Your task to perform on an android device: clear history in the chrome app Image 0: 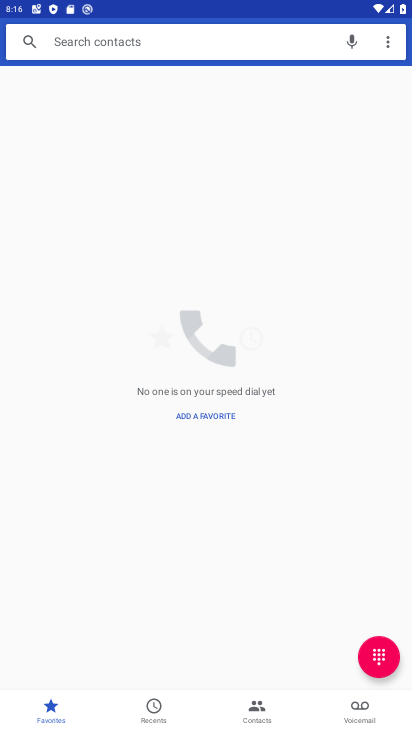
Step 0: drag from (175, 509) to (199, 290)
Your task to perform on an android device: clear history in the chrome app Image 1: 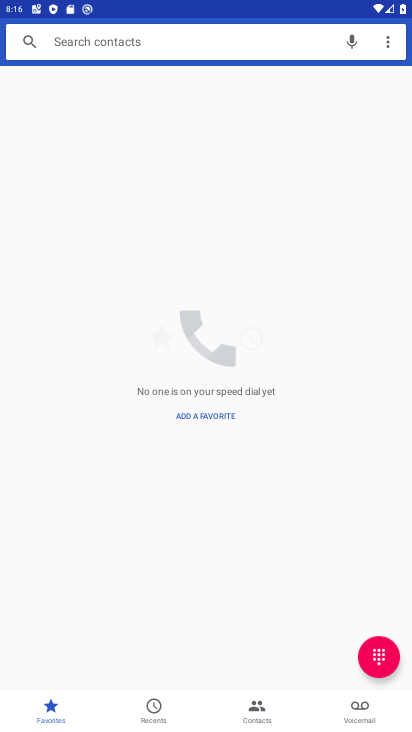
Step 1: press home button
Your task to perform on an android device: clear history in the chrome app Image 2: 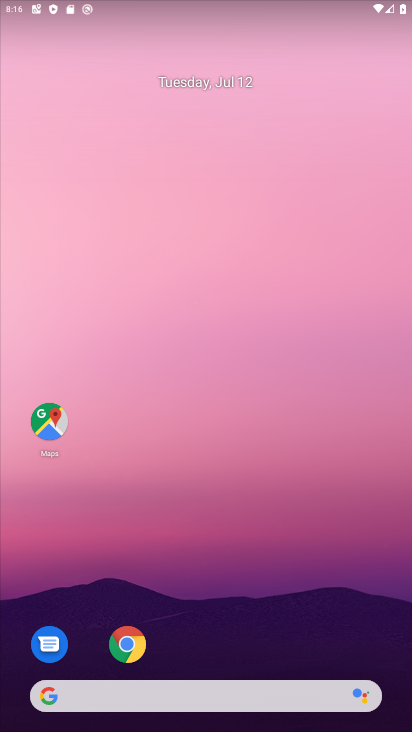
Step 2: drag from (188, 663) to (229, 130)
Your task to perform on an android device: clear history in the chrome app Image 3: 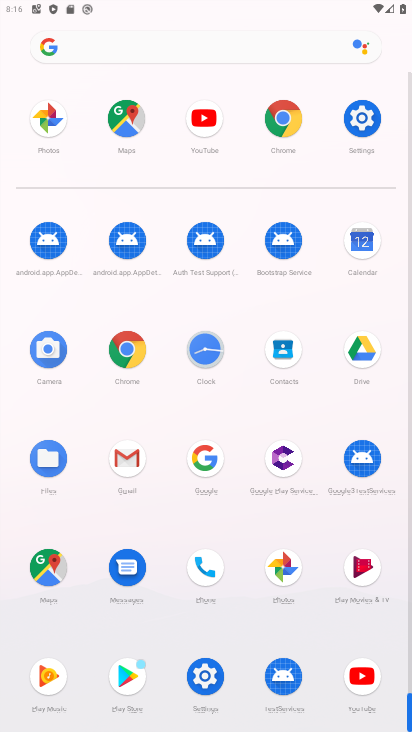
Step 3: click (117, 347)
Your task to perform on an android device: clear history in the chrome app Image 4: 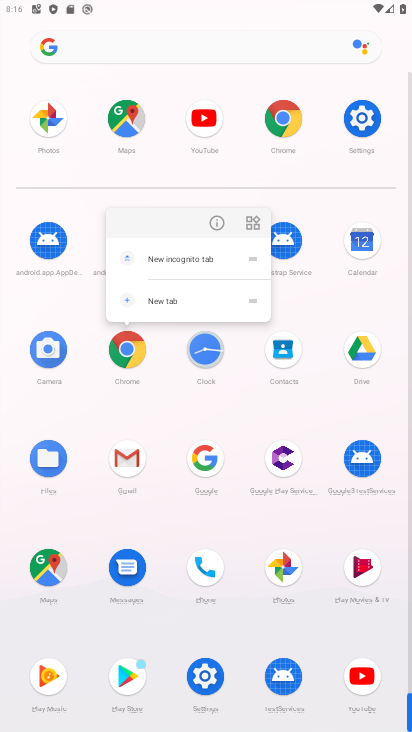
Step 4: click (225, 217)
Your task to perform on an android device: clear history in the chrome app Image 5: 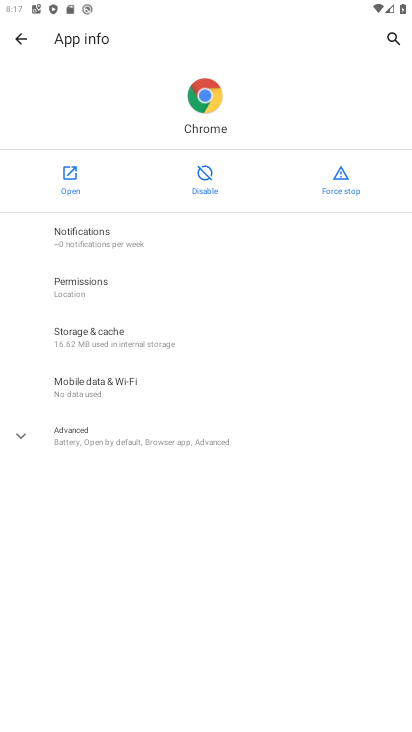
Step 5: drag from (240, 624) to (189, 372)
Your task to perform on an android device: clear history in the chrome app Image 6: 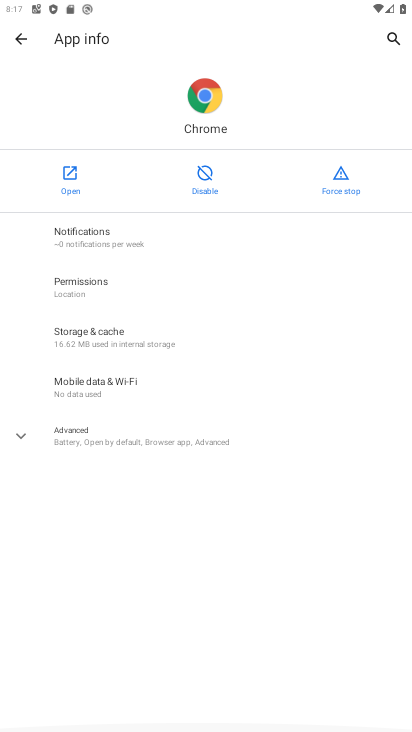
Step 6: click (70, 178)
Your task to perform on an android device: clear history in the chrome app Image 7: 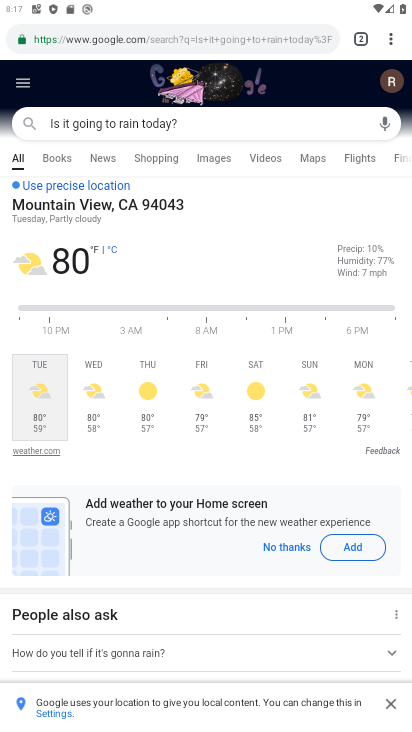
Step 7: drag from (223, 646) to (296, 104)
Your task to perform on an android device: clear history in the chrome app Image 8: 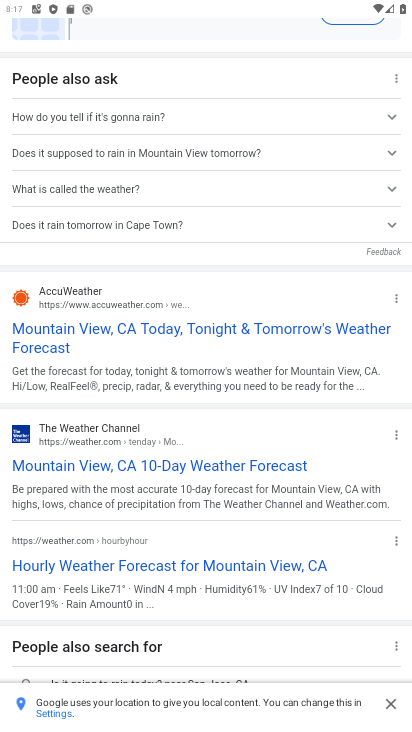
Step 8: drag from (189, 640) to (232, 353)
Your task to perform on an android device: clear history in the chrome app Image 9: 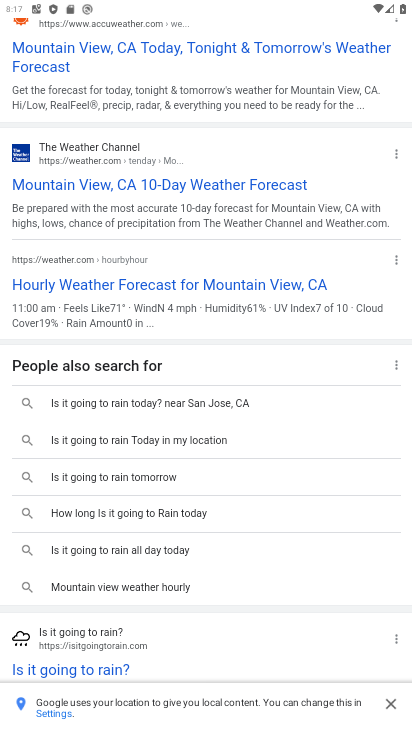
Step 9: drag from (242, 583) to (278, 146)
Your task to perform on an android device: clear history in the chrome app Image 10: 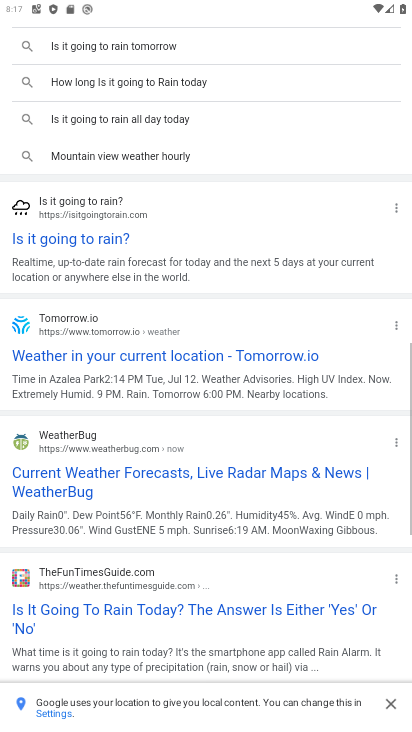
Step 10: drag from (283, 100) to (249, 691)
Your task to perform on an android device: clear history in the chrome app Image 11: 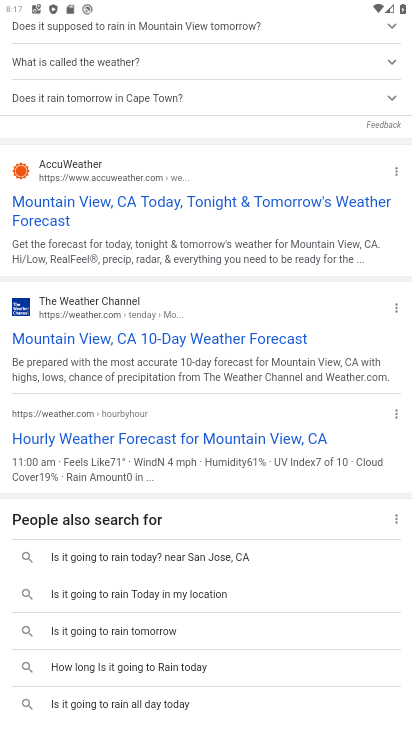
Step 11: drag from (249, 205) to (206, 727)
Your task to perform on an android device: clear history in the chrome app Image 12: 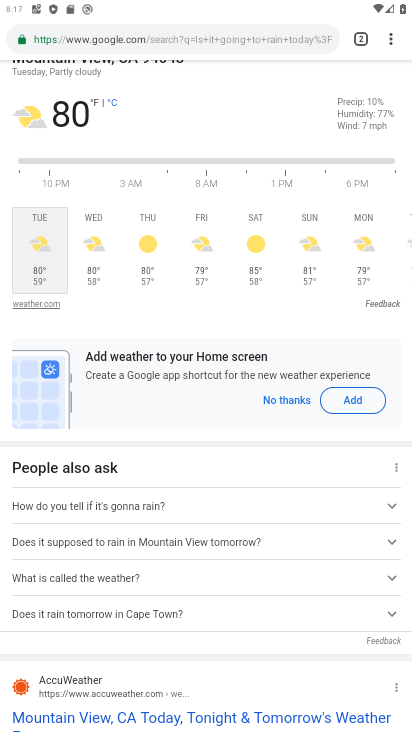
Step 12: drag from (214, 262) to (227, 528)
Your task to perform on an android device: clear history in the chrome app Image 13: 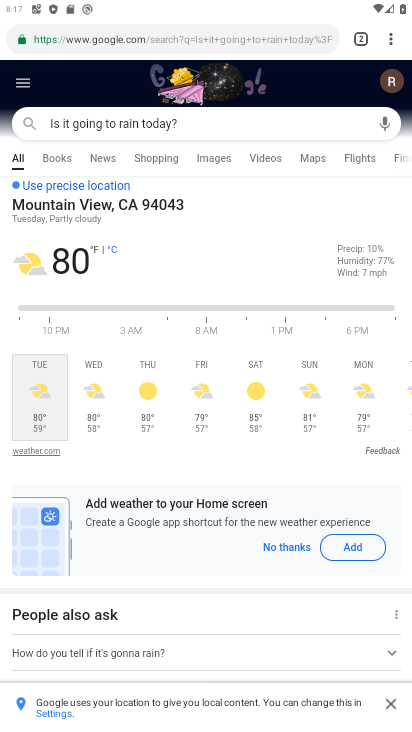
Step 13: drag from (221, 172) to (176, 640)
Your task to perform on an android device: clear history in the chrome app Image 14: 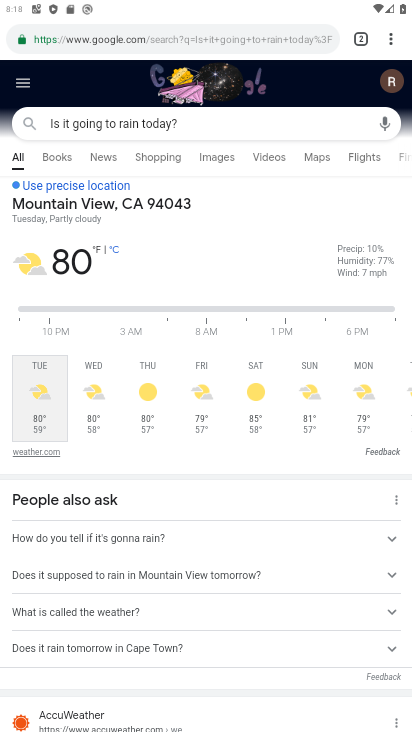
Step 14: drag from (192, 265) to (193, 642)
Your task to perform on an android device: clear history in the chrome app Image 15: 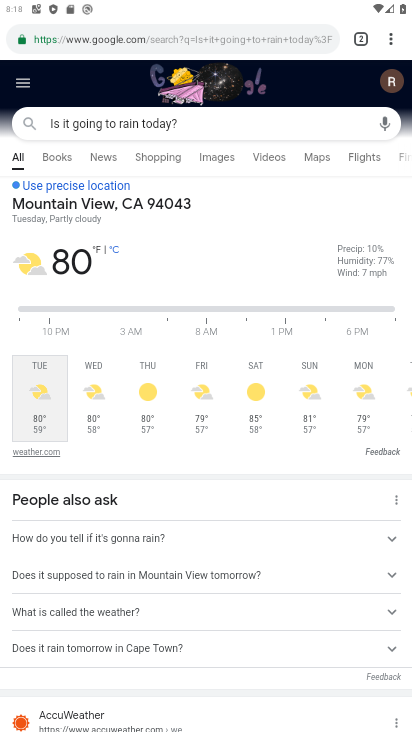
Step 15: drag from (201, 623) to (275, 84)
Your task to perform on an android device: clear history in the chrome app Image 16: 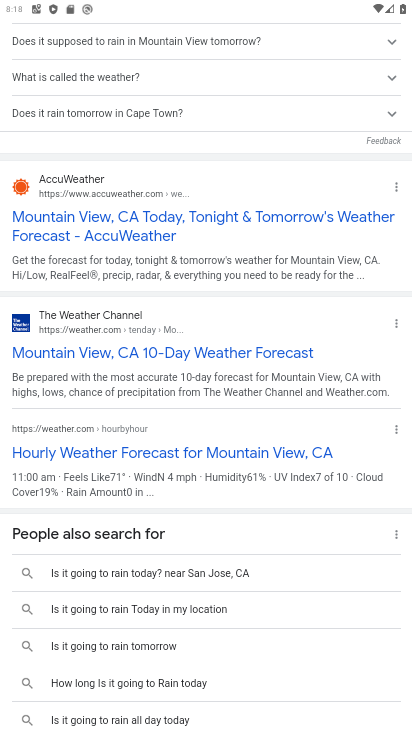
Step 16: drag from (172, 511) to (256, 177)
Your task to perform on an android device: clear history in the chrome app Image 17: 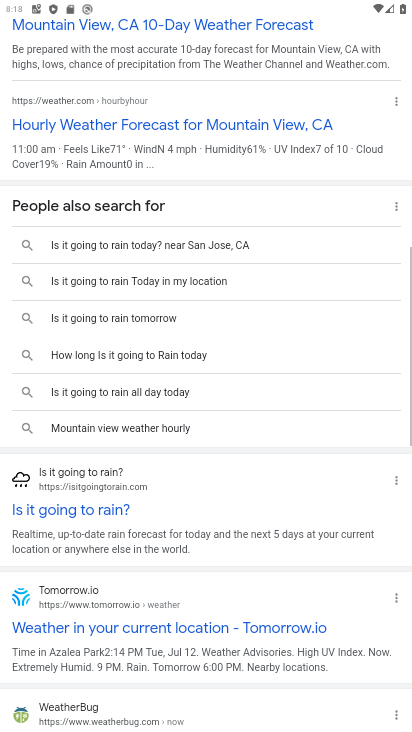
Step 17: drag from (267, 142) to (250, 728)
Your task to perform on an android device: clear history in the chrome app Image 18: 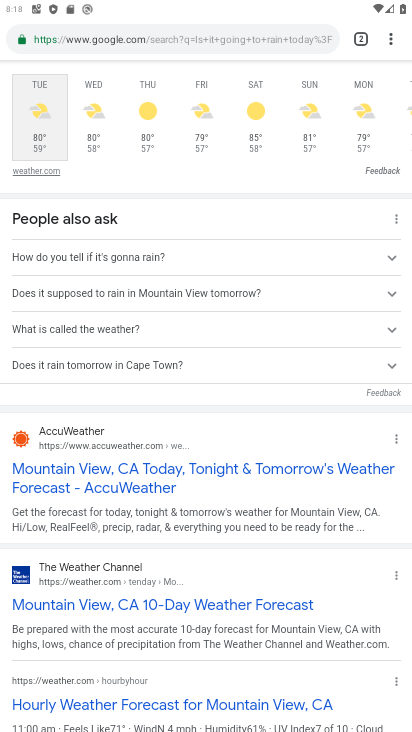
Step 18: drag from (226, 232) to (252, 711)
Your task to perform on an android device: clear history in the chrome app Image 19: 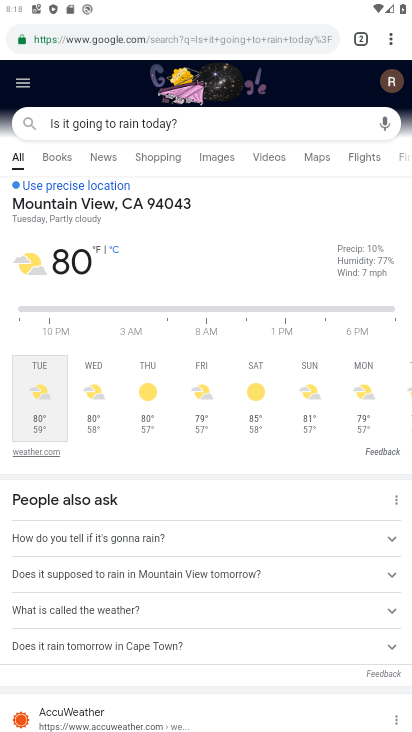
Step 19: drag from (204, 226) to (223, 453)
Your task to perform on an android device: clear history in the chrome app Image 20: 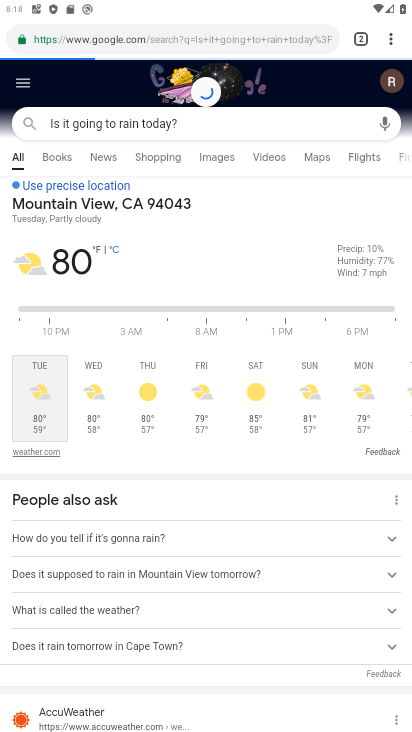
Step 20: drag from (189, 588) to (292, 106)
Your task to perform on an android device: clear history in the chrome app Image 21: 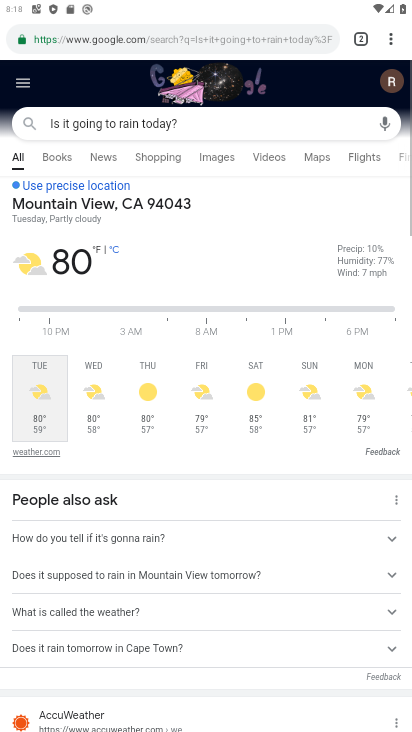
Step 21: drag from (186, 550) to (290, 136)
Your task to perform on an android device: clear history in the chrome app Image 22: 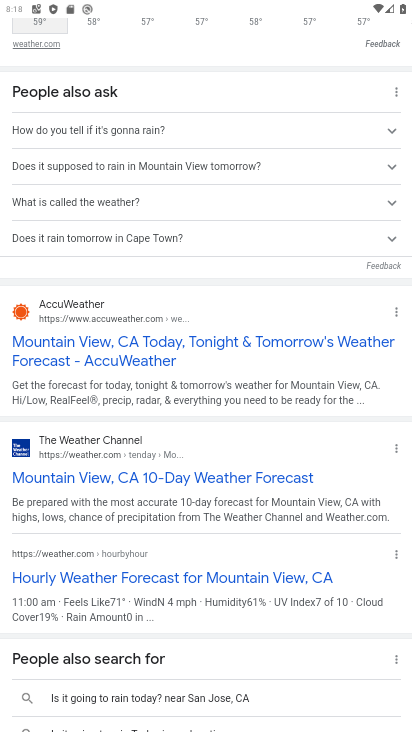
Step 22: drag from (218, 623) to (299, 340)
Your task to perform on an android device: clear history in the chrome app Image 23: 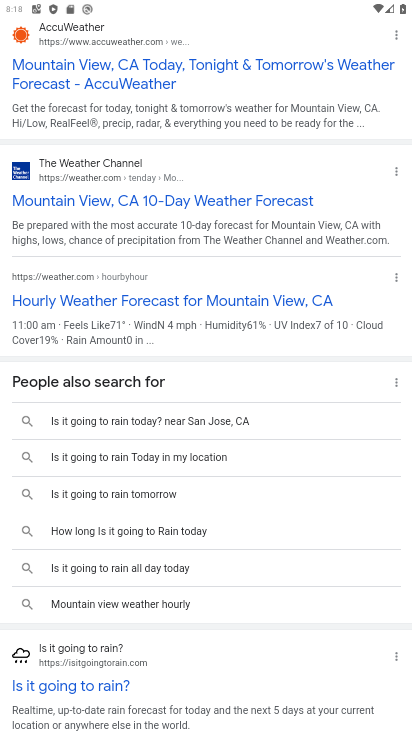
Step 23: drag from (312, 139) to (292, 602)
Your task to perform on an android device: clear history in the chrome app Image 24: 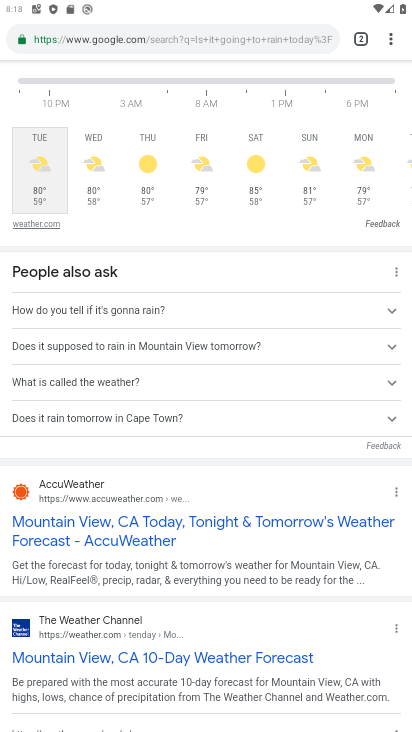
Step 24: click (387, 37)
Your task to perform on an android device: clear history in the chrome app Image 25: 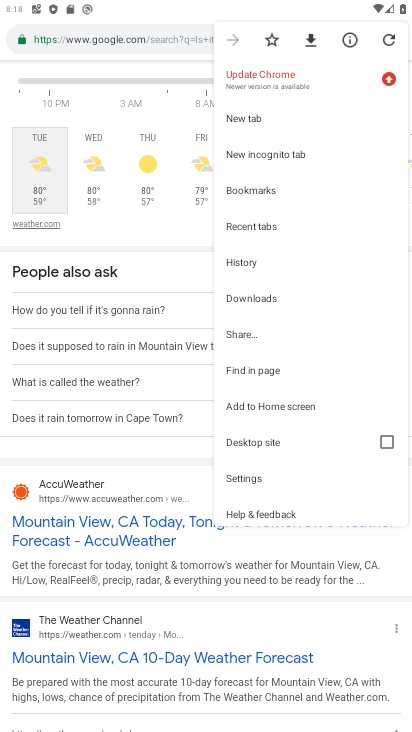
Step 25: click (245, 267)
Your task to perform on an android device: clear history in the chrome app Image 26: 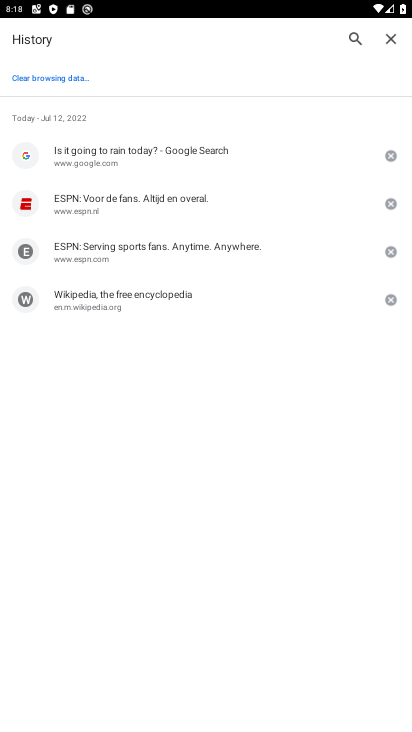
Step 26: click (32, 77)
Your task to perform on an android device: clear history in the chrome app Image 27: 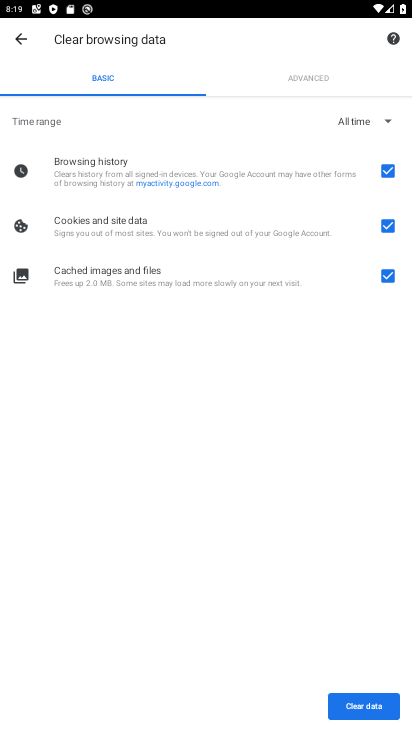
Step 27: drag from (221, 493) to (235, 220)
Your task to perform on an android device: clear history in the chrome app Image 28: 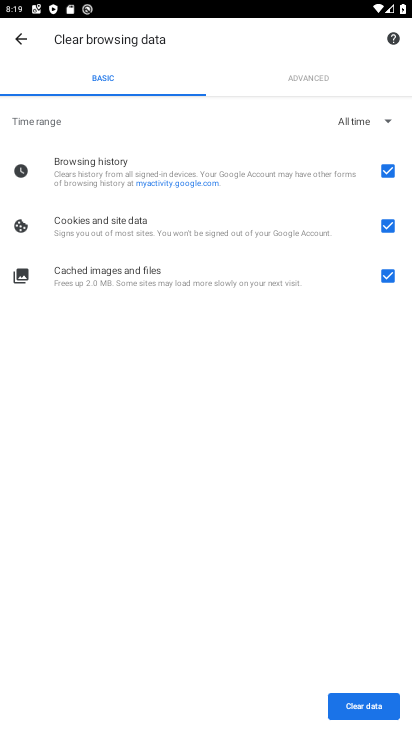
Step 28: drag from (203, 576) to (239, 226)
Your task to perform on an android device: clear history in the chrome app Image 29: 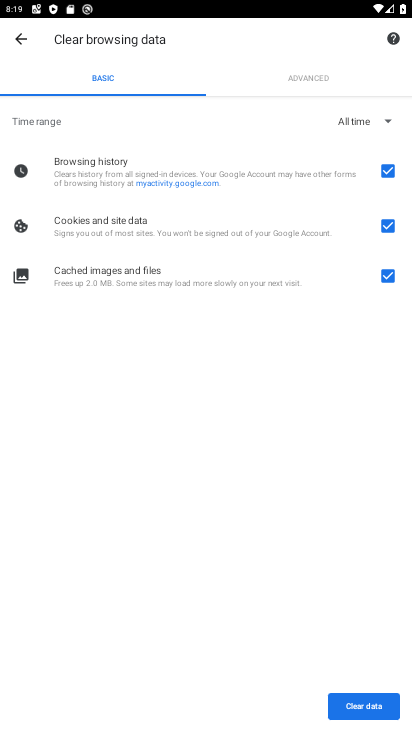
Step 29: click (343, 706)
Your task to perform on an android device: clear history in the chrome app Image 30: 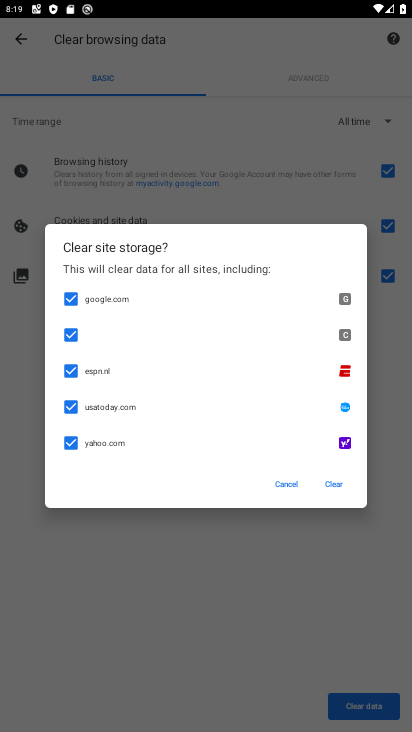
Step 30: click (329, 485)
Your task to perform on an android device: clear history in the chrome app Image 31: 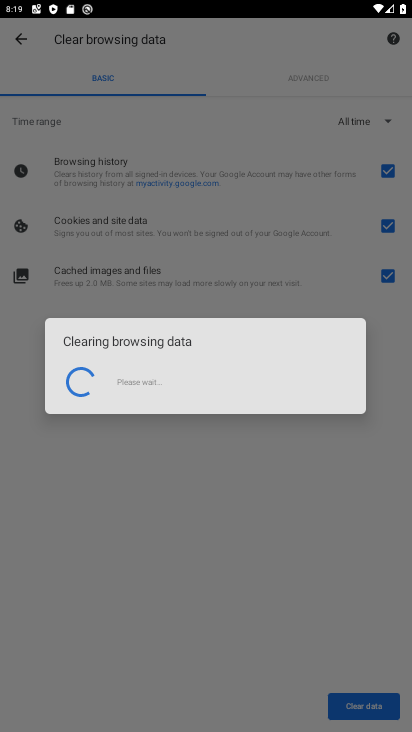
Step 31: task complete